Your task to perform on an android device: Open Wikipedia Image 0: 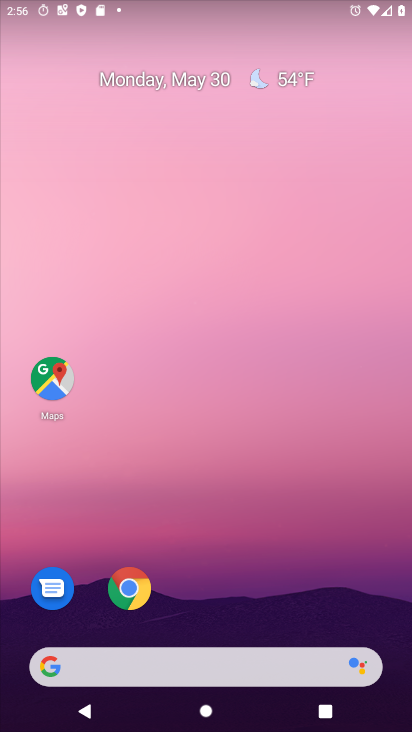
Step 0: click (127, 590)
Your task to perform on an android device: Open Wikipedia Image 1: 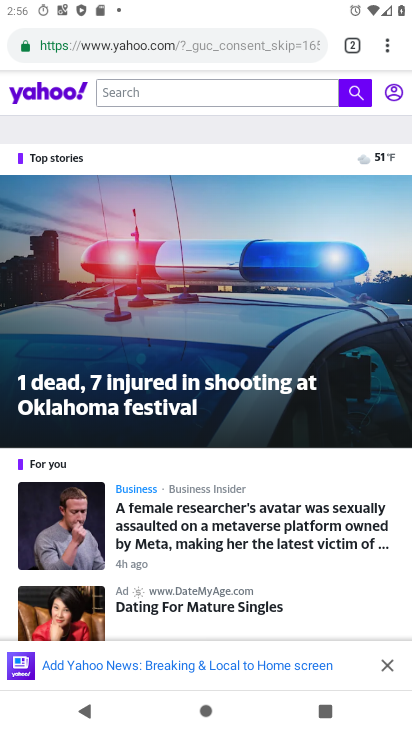
Step 1: press back button
Your task to perform on an android device: Open Wikipedia Image 2: 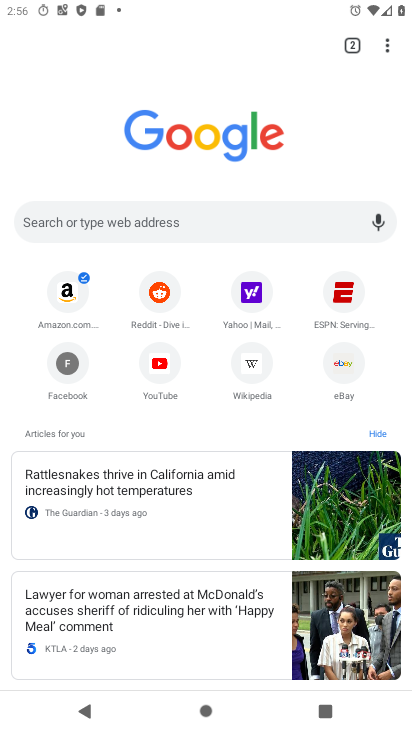
Step 2: click (252, 364)
Your task to perform on an android device: Open Wikipedia Image 3: 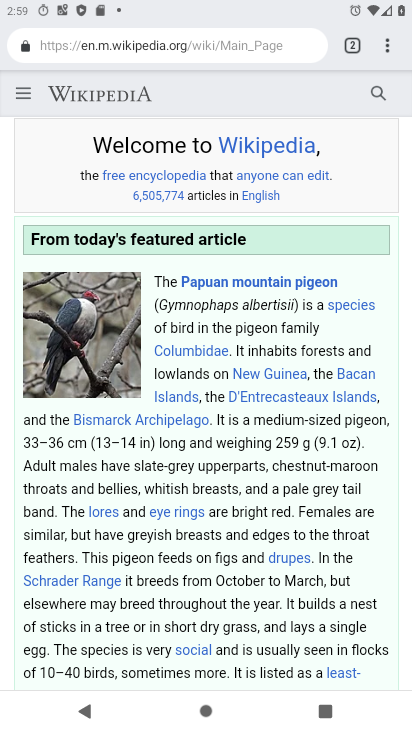
Step 3: task complete